Your task to perform on an android device: set the timer Image 0: 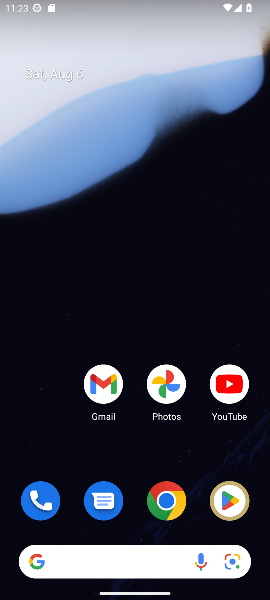
Step 0: drag from (134, 384) to (82, 109)
Your task to perform on an android device: set the timer Image 1: 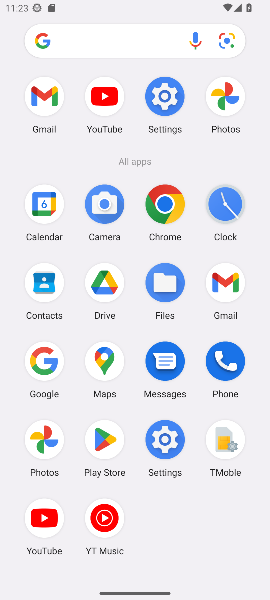
Step 1: click (222, 212)
Your task to perform on an android device: set the timer Image 2: 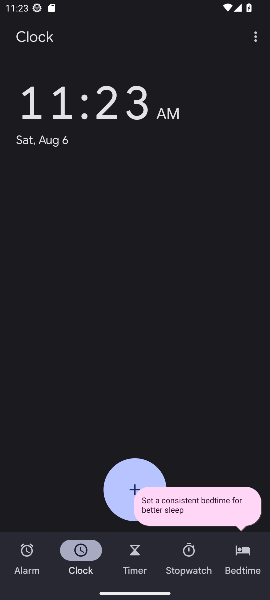
Step 2: click (135, 557)
Your task to perform on an android device: set the timer Image 3: 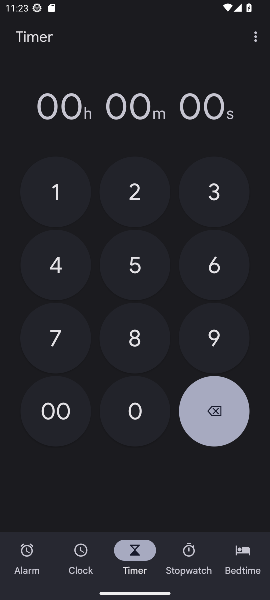
Step 3: click (61, 189)
Your task to perform on an android device: set the timer Image 4: 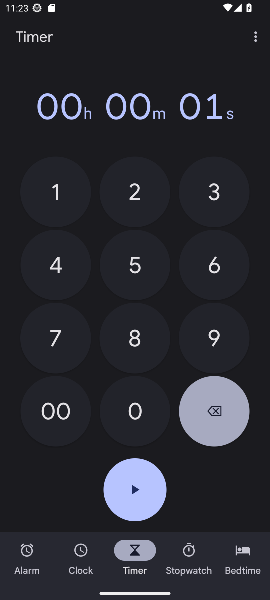
Step 4: click (122, 419)
Your task to perform on an android device: set the timer Image 5: 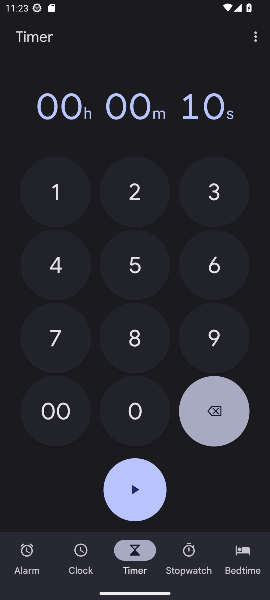
Step 5: click (152, 485)
Your task to perform on an android device: set the timer Image 6: 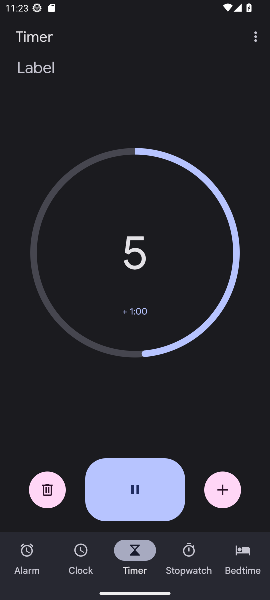
Step 6: click (228, 477)
Your task to perform on an android device: set the timer Image 7: 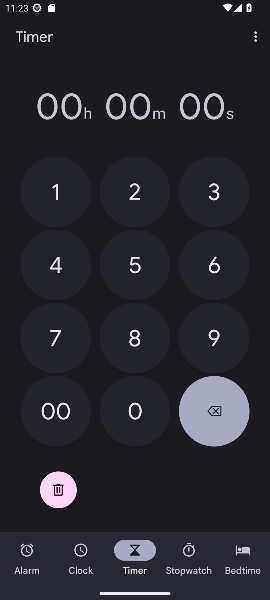
Step 7: task complete